Your task to perform on an android device: Open sound settings Image 0: 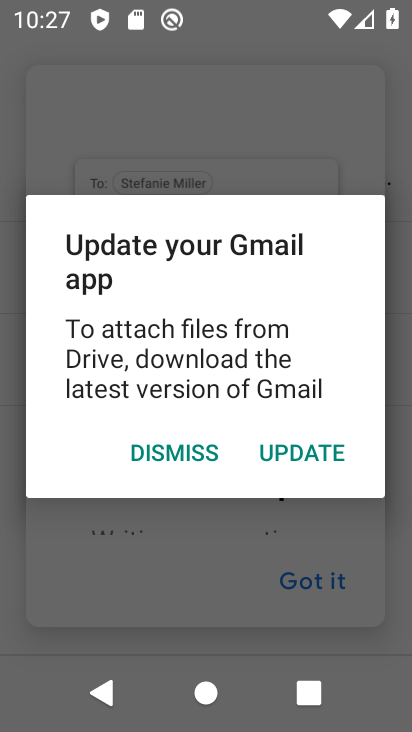
Step 0: press home button
Your task to perform on an android device: Open sound settings Image 1: 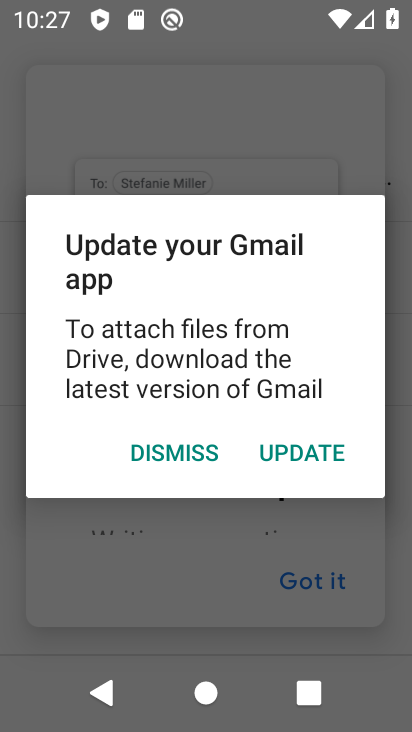
Step 1: drag from (326, 31) to (235, 0)
Your task to perform on an android device: Open sound settings Image 2: 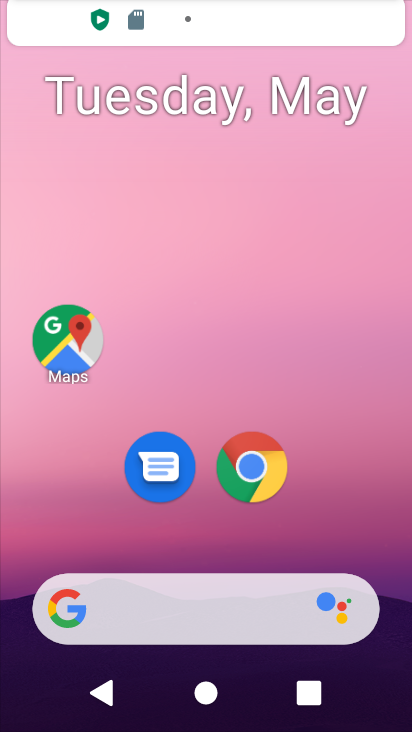
Step 2: press home button
Your task to perform on an android device: Open sound settings Image 3: 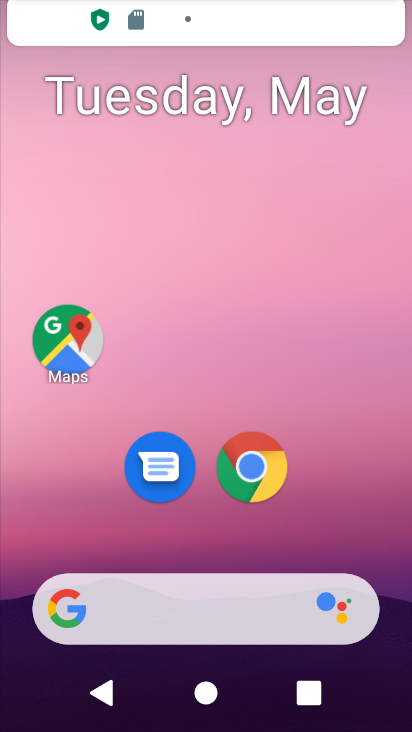
Step 3: press home button
Your task to perform on an android device: Open sound settings Image 4: 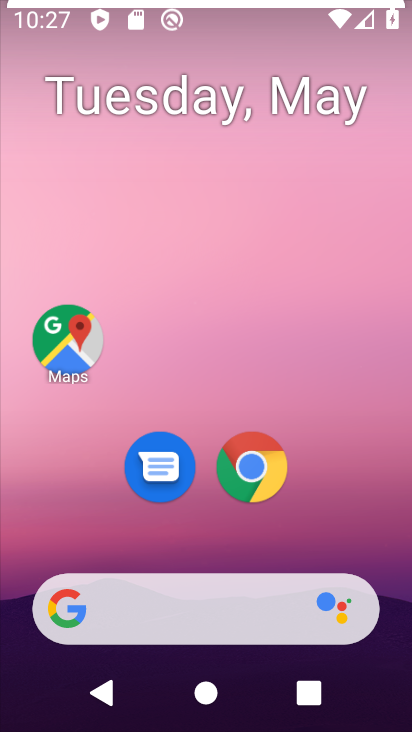
Step 4: drag from (235, 0) to (411, 530)
Your task to perform on an android device: Open sound settings Image 5: 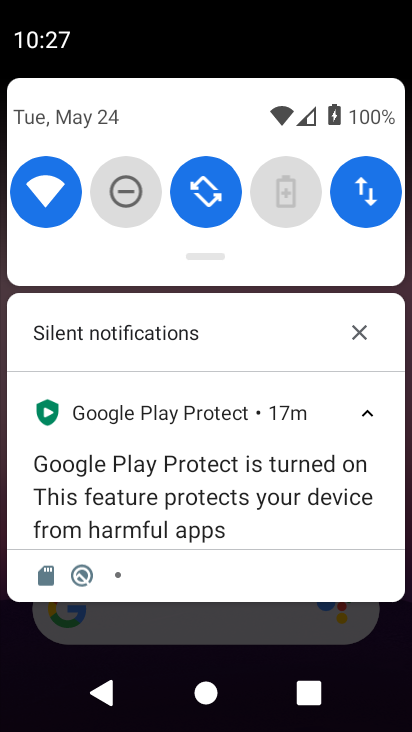
Step 5: click (369, 340)
Your task to perform on an android device: Open sound settings Image 6: 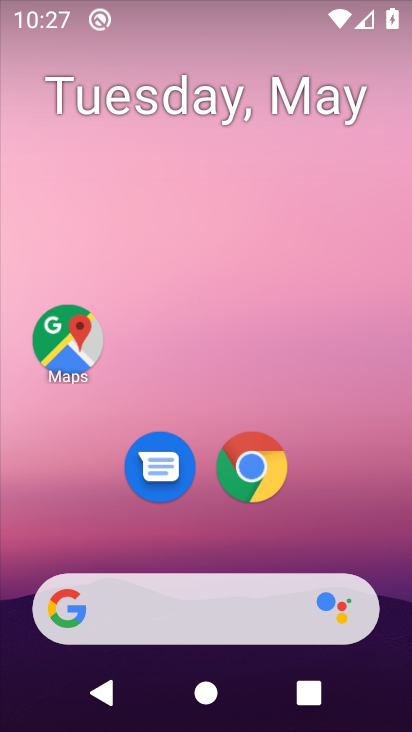
Step 6: drag from (174, 542) to (200, 124)
Your task to perform on an android device: Open sound settings Image 7: 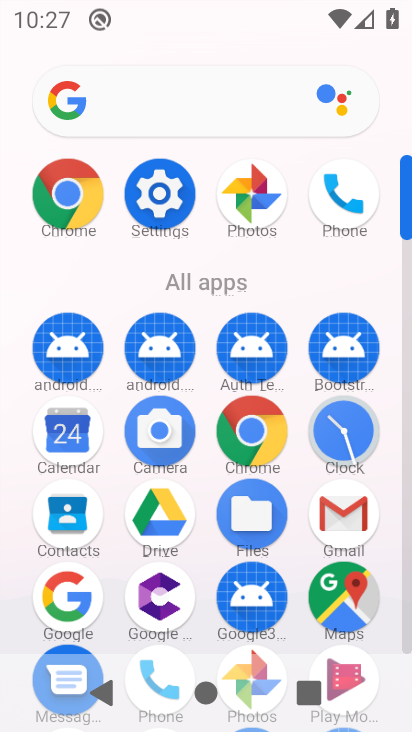
Step 7: click (147, 196)
Your task to perform on an android device: Open sound settings Image 8: 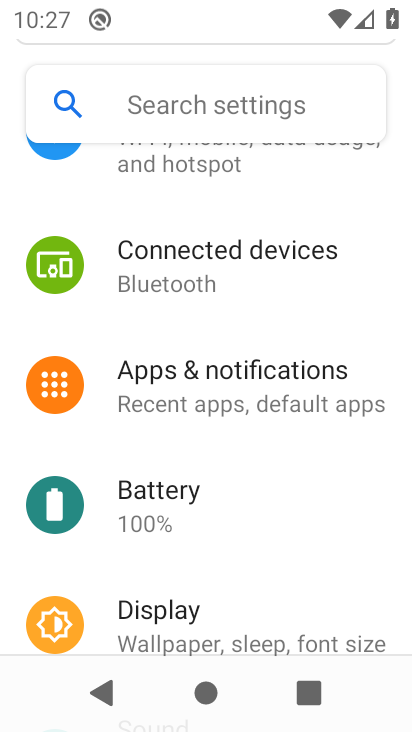
Step 8: drag from (198, 561) to (229, 124)
Your task to perform on an android device: Open sound settings Image 9: 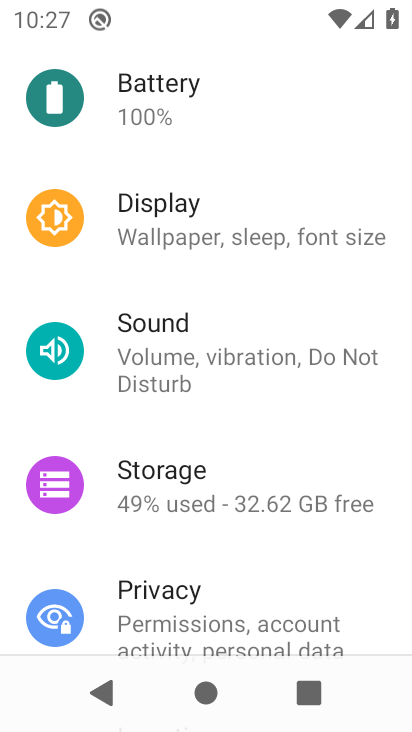
Step 9: drag from (240, 501) to (273, 278)
Your task to perform on an android device: Open sound settings Image 10: 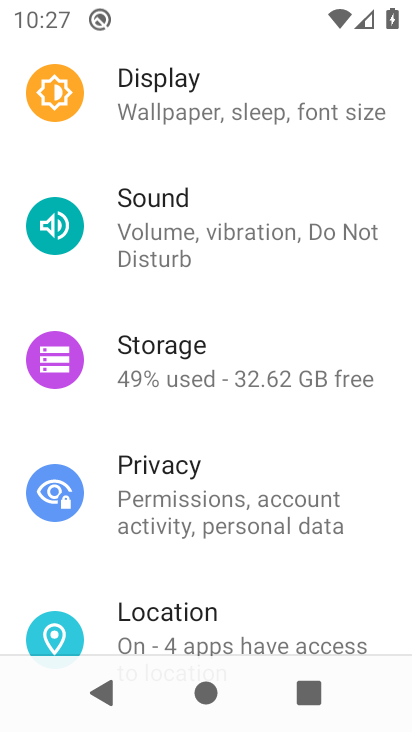
Step 10: click (212, 216)
Your task to perform on an android device: Open sound settings Image 11: 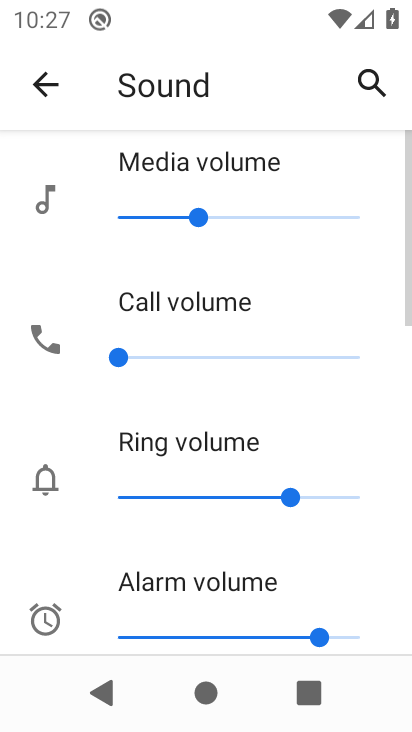
Step 11: task complete